Your task to perform on an android device: What's the price of the 1000-Watt EGO Power+ Snow Blower? Image 0: 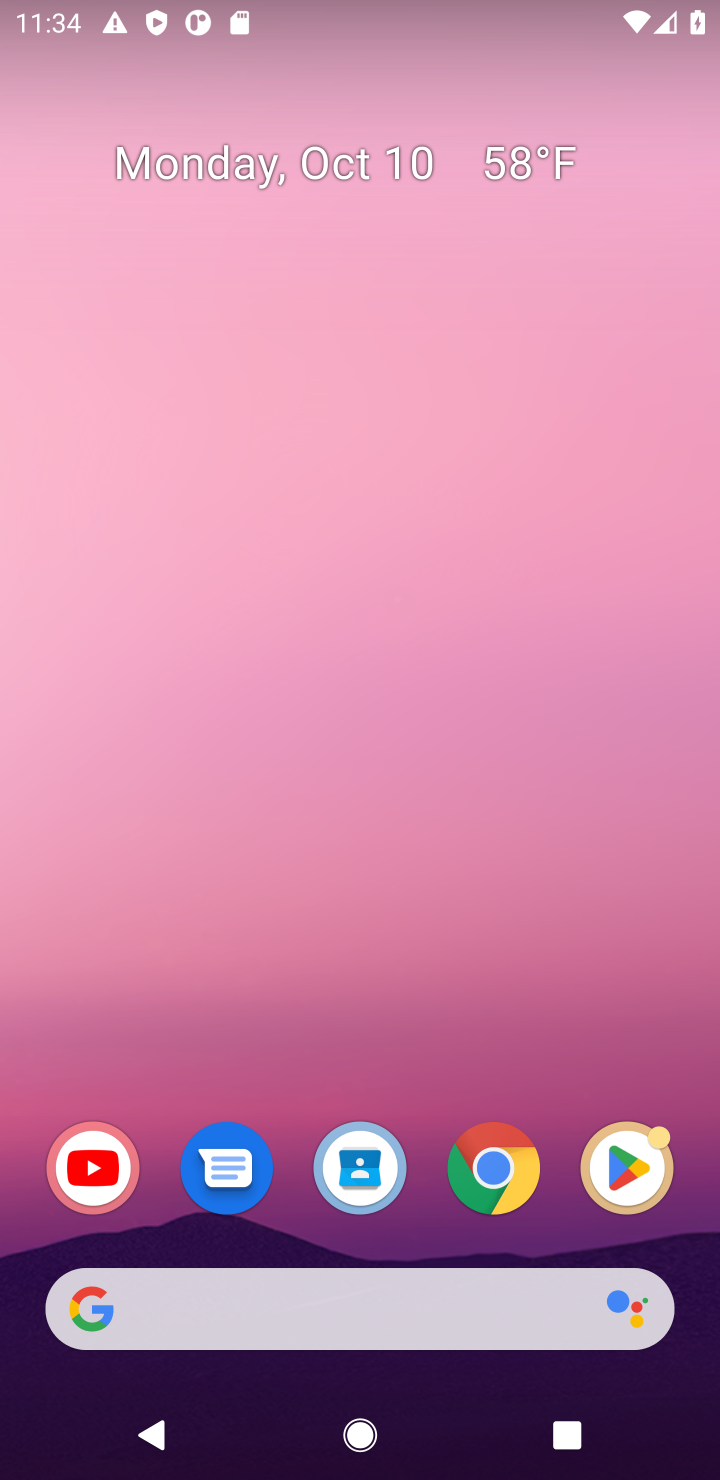
Step 0: click (303, 1316)
Your task to perform on an android device: What's the price of the 1000-Watt EGO Power+ Snow Blower? Image 1: 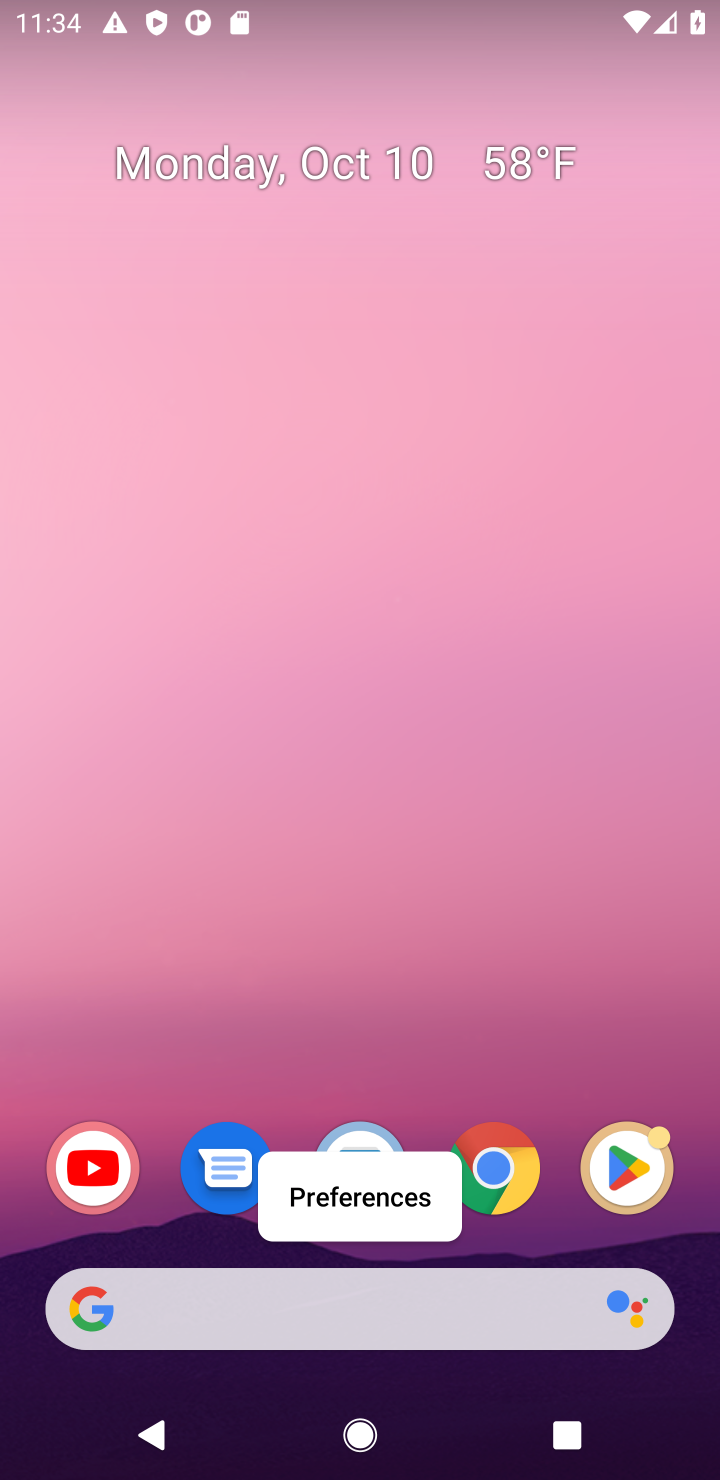
Step 1: click (303, 1321)
Your task to perform on an android device: What's the price of the 1000-Watt EGO Power+ Snow Blower? Image 2: 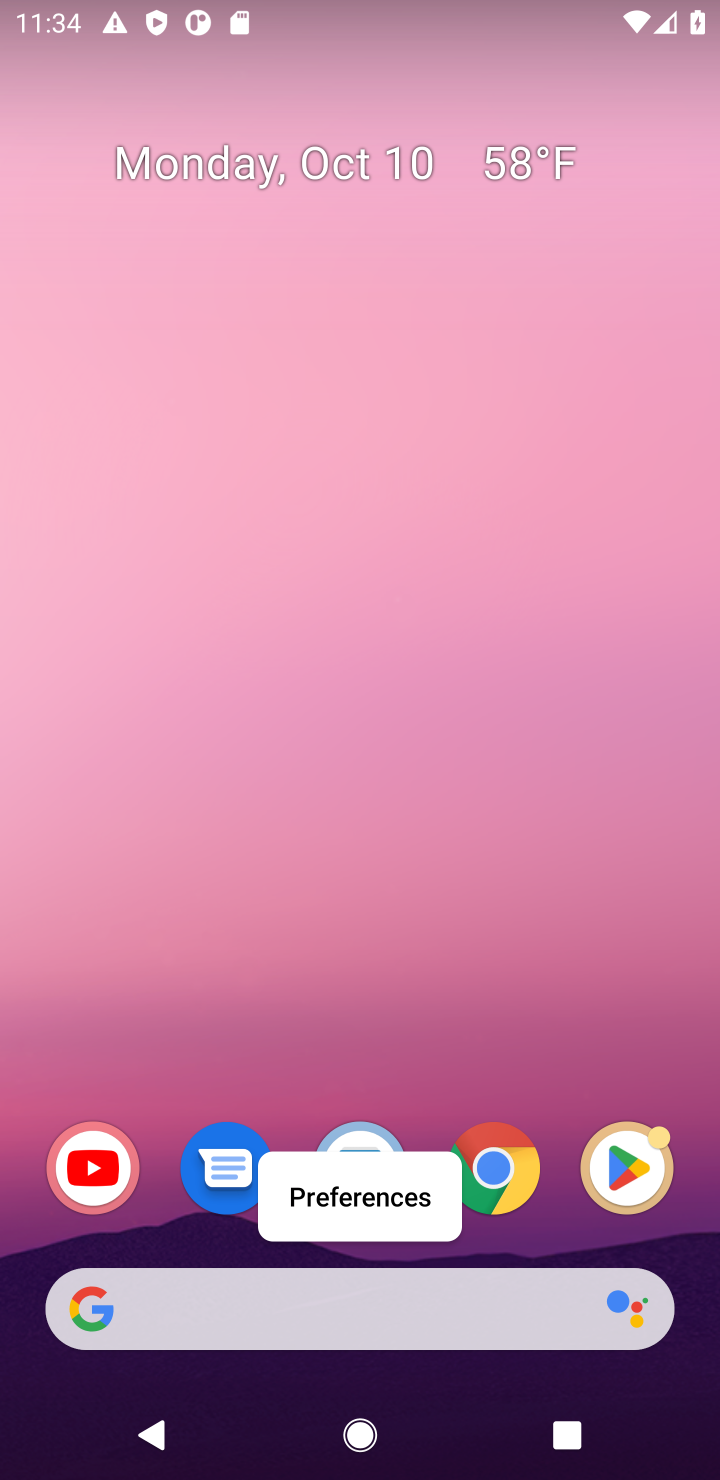
Step 2: click (303, 1321)
Your task to perform on an android device: What's the price of the 1000-Watt EGO Power+ Snow Blower? Image 3: 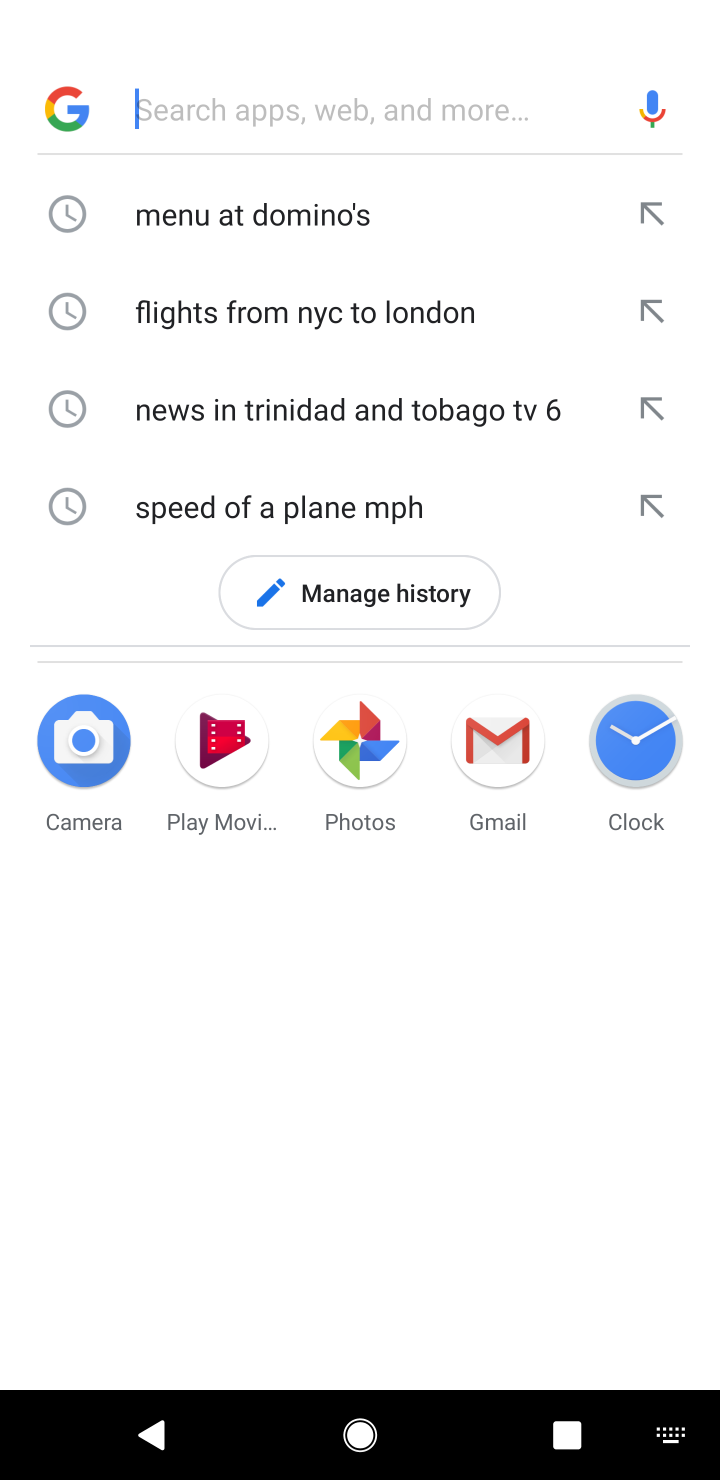
Step 3: type "price of the 1000-Watt EGO Power+ Snow Blower"
Your task to perform on an android device: What's the price of the 1000-Watt EGO Power+ Snow Blower? Image 4: 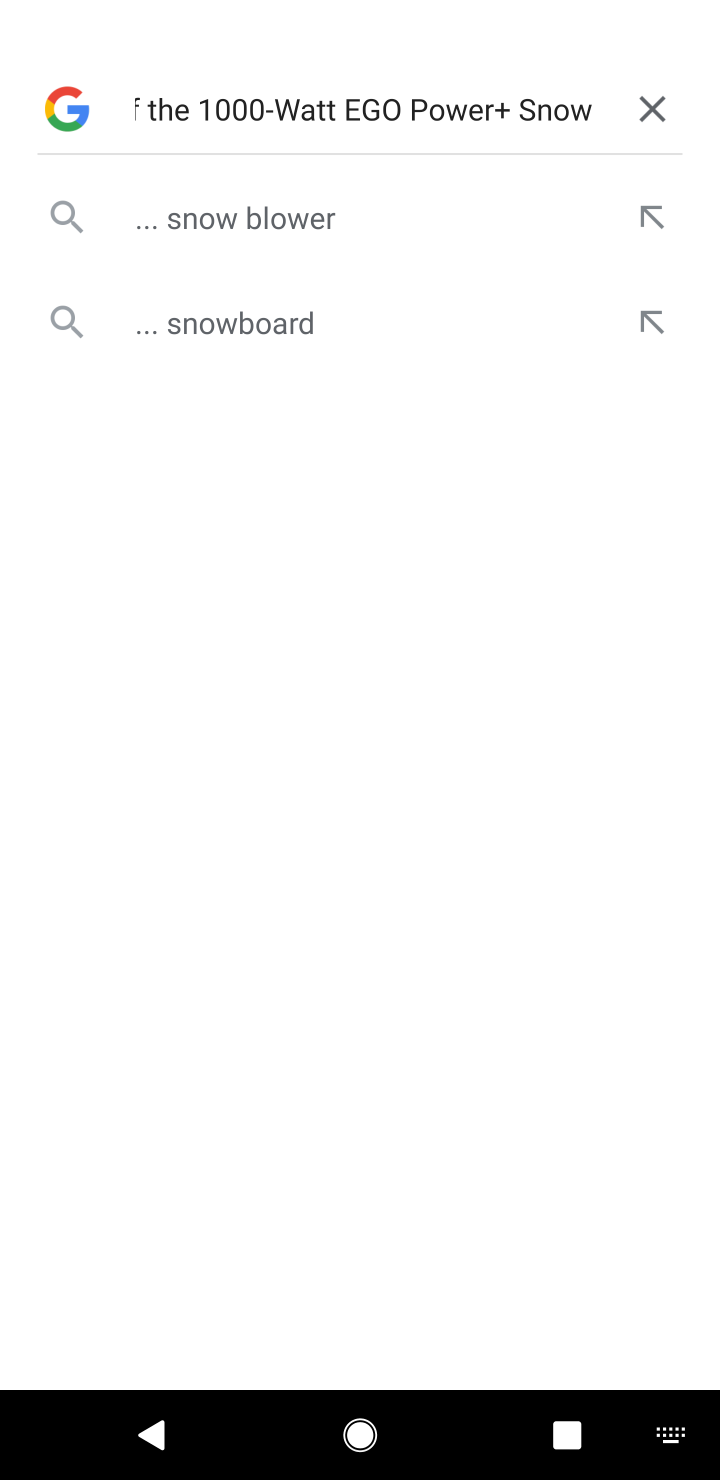
Step 4: type ""
Your task to perform on an android device: What's the price of the 1000-Watt EGO Power+ Snow Blower? Image 5: 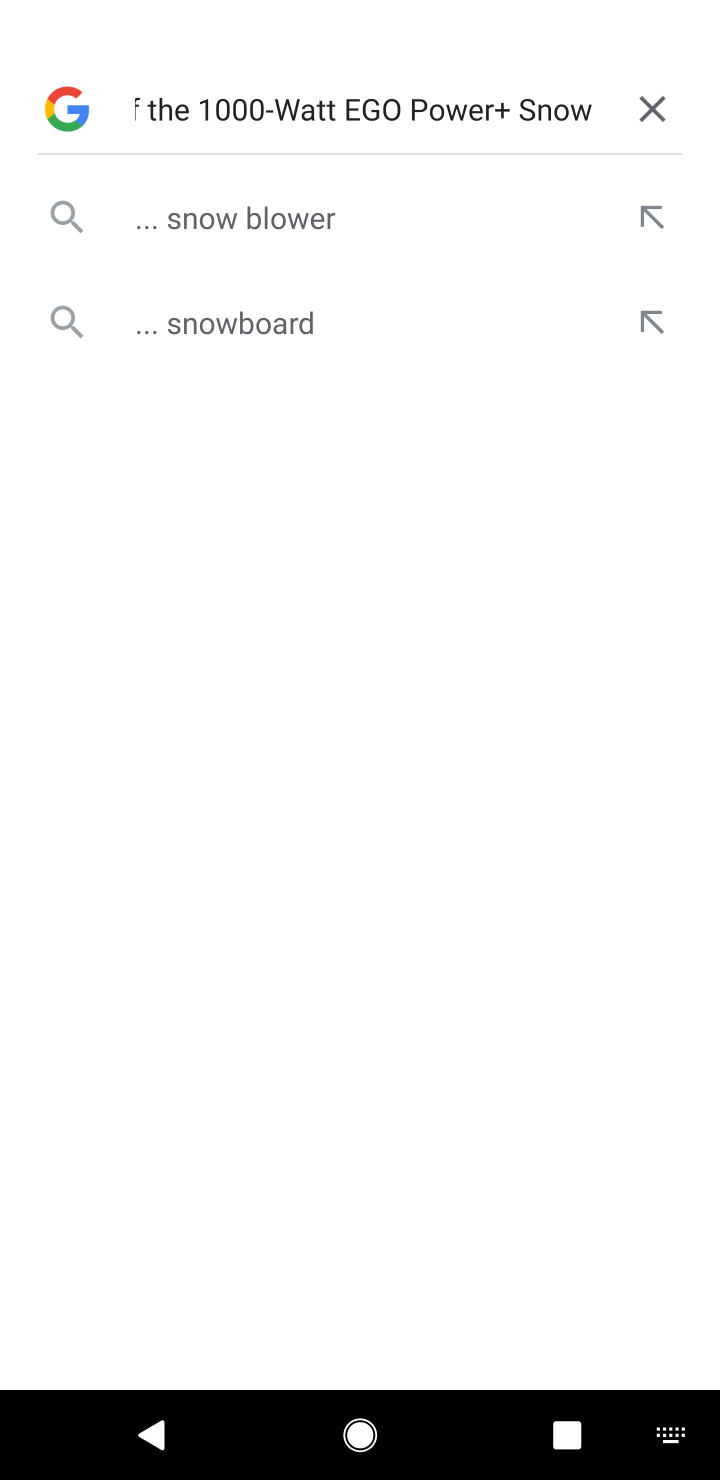
Step 5: click (432, 239)
Your task to perform on an android device: What's the price of the 1000-Watt EGO Power+ Snow Blower? Image 6: 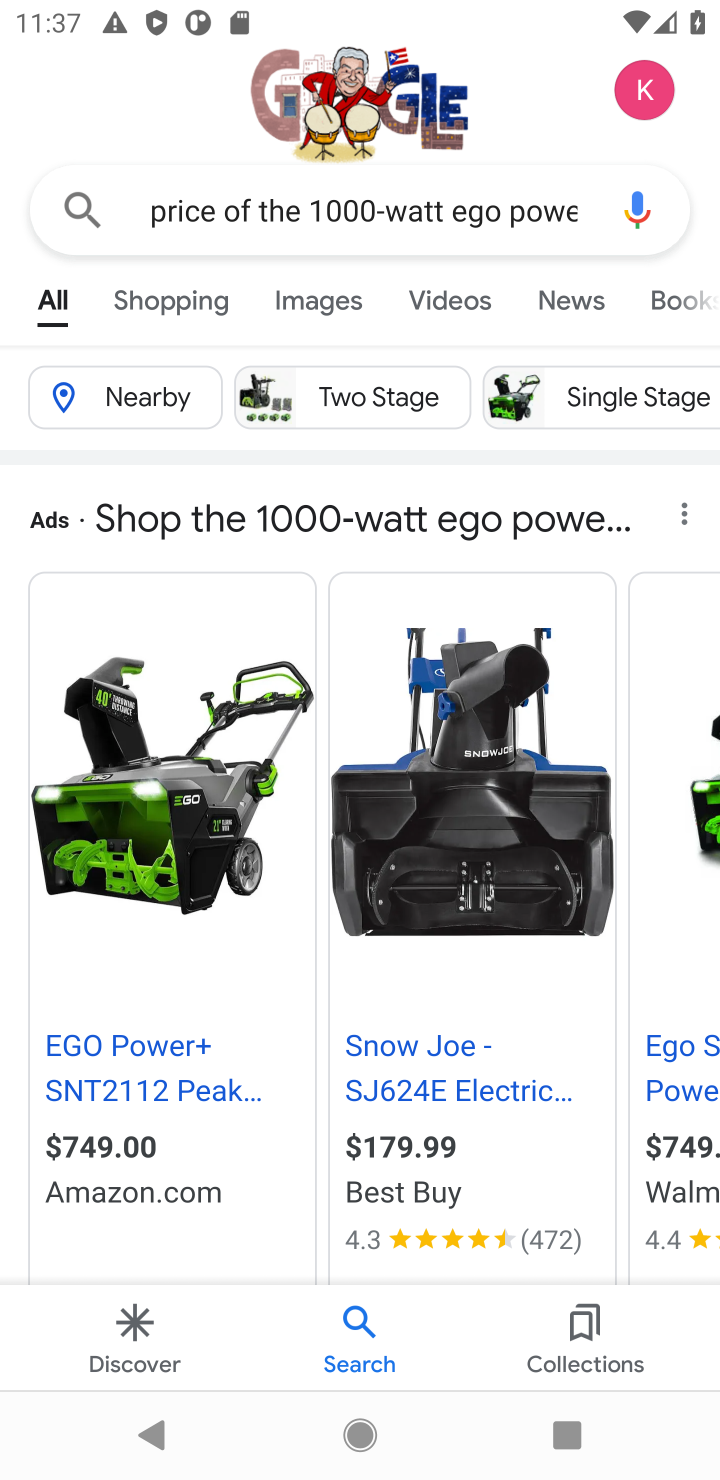
Step 6: task complete